Your task to perform on an android device: toggle airplane mode Image 0: 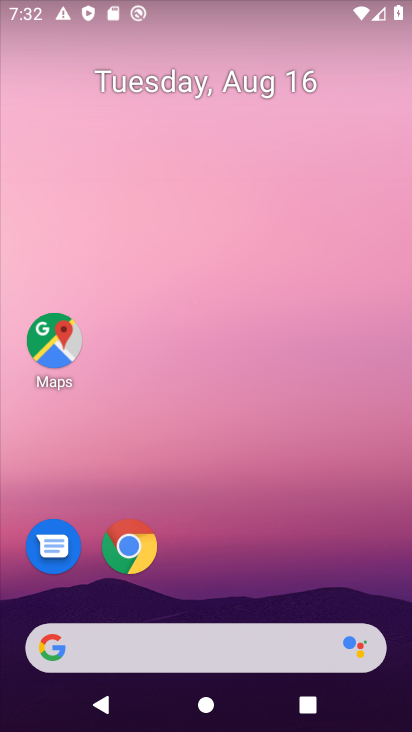
Step 0: drag from (244, 551) to (246, 19)
Your task to perform on an android device: toggle airplane mode Image 1: 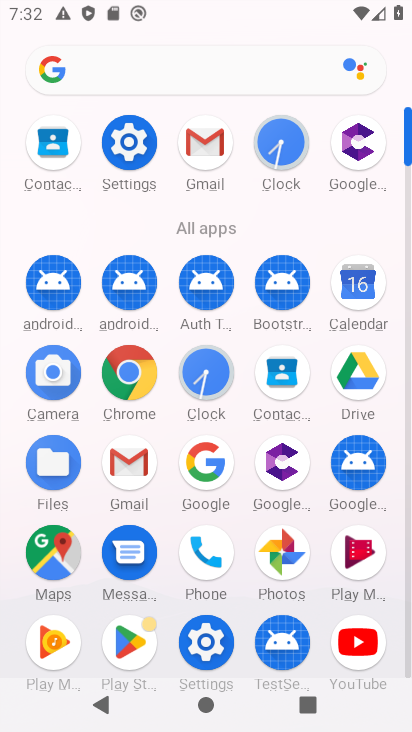
Step 1: click (143, 151)
Your task to perform on an android device: toggle airplane mode Image 2: 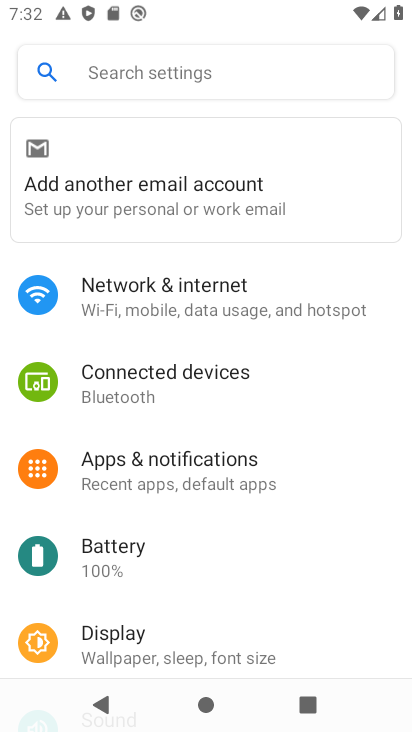
Step 2: click (190, 302)
Your task to perform on an android device: toggle airplane mode Image 3: 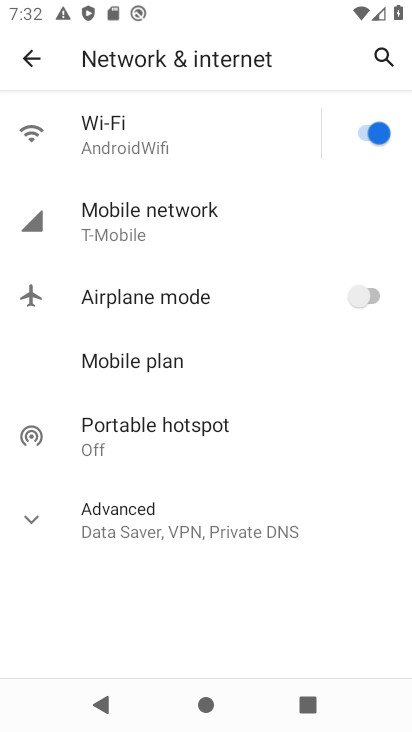
Step 3: click (371, 294)
Your task to perform on an android device: toggle airplane mode Image 4: 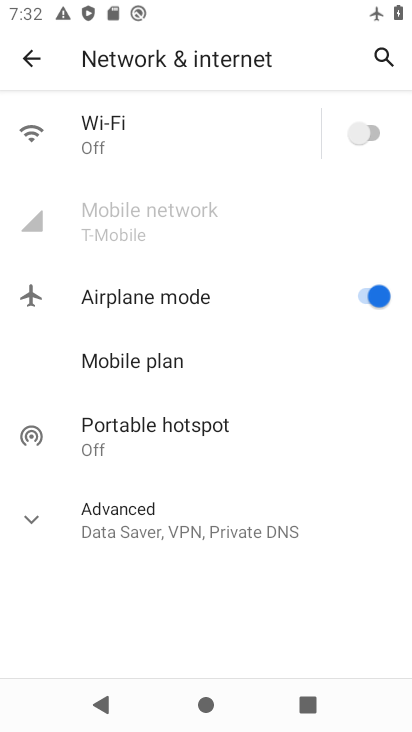
Step 4: task complete